Your task to perform on an android device: turn on the 24-hour format for clock Image 0: 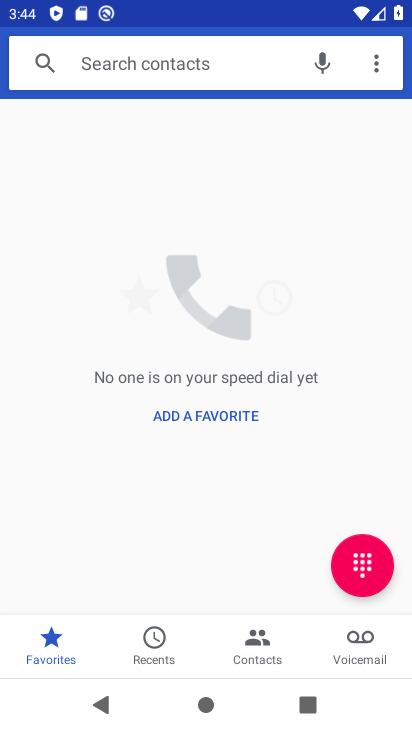
Step 0: press home button
Your task to perform on an android device: turn on the 24-hour format for clock Image 1: 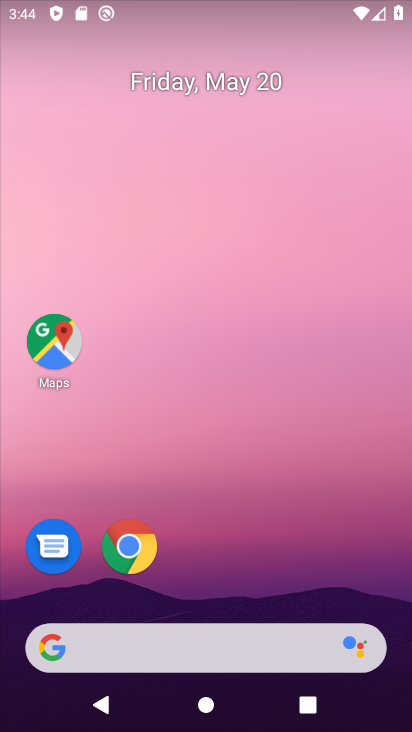
Step 1: drag from (204, 565) to (265, 164)
Your task to perform on an android device: turn on the 24-hour format for clock Image 2: 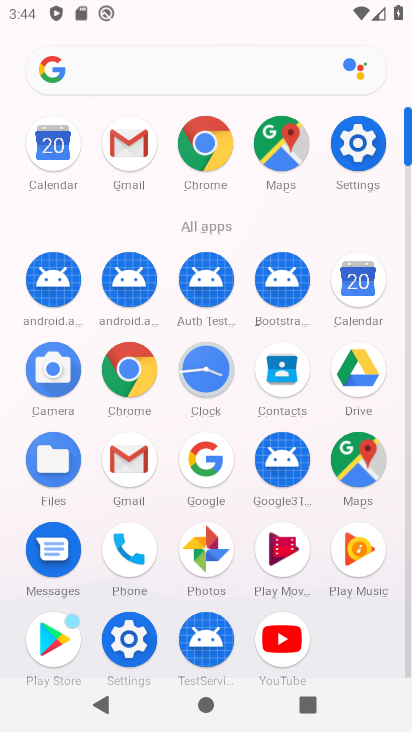
Step 2: click (209, 372)
Your task to perform on an android device: turn on the 24-hour format for clock Image 3: 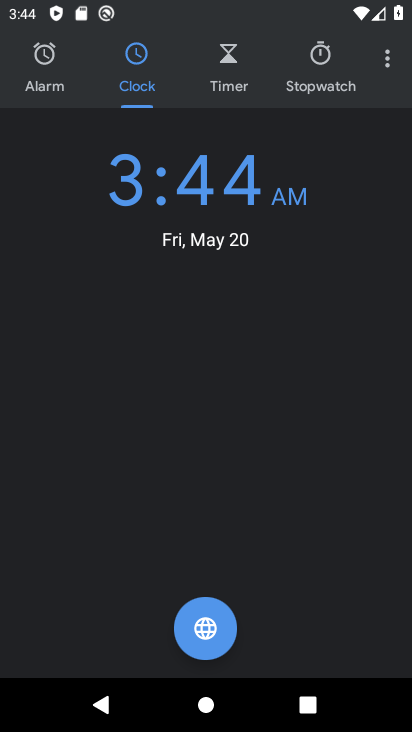
Step 3: drag from (388, 64) to (294, 116)
Your task to perform on an android device: turn on the 24-hour format for clock Image 4: 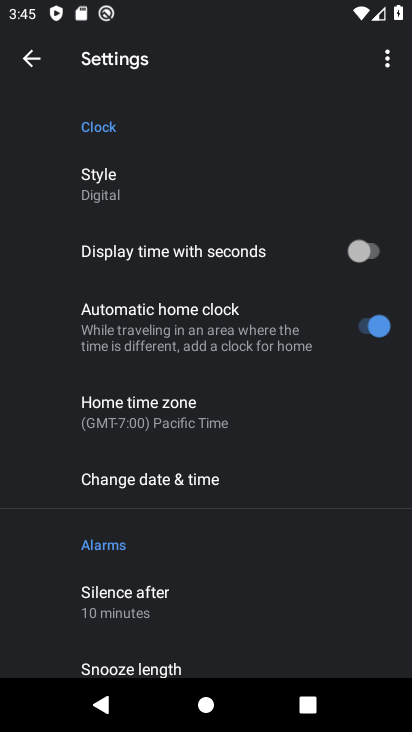
Step 4: click (179, 470)
Your task to perform on an android device: turn on the 24-hour format for clock Image 5: 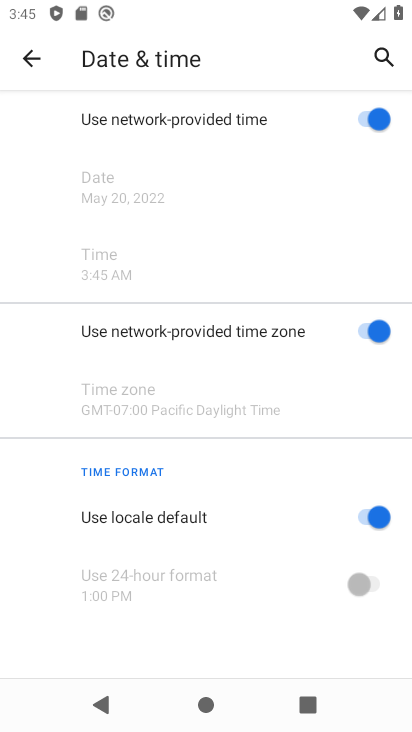
Step 5: click (359, 514)
Your task to perform on an android device: turn on the 24-hour format for clock Image 6: 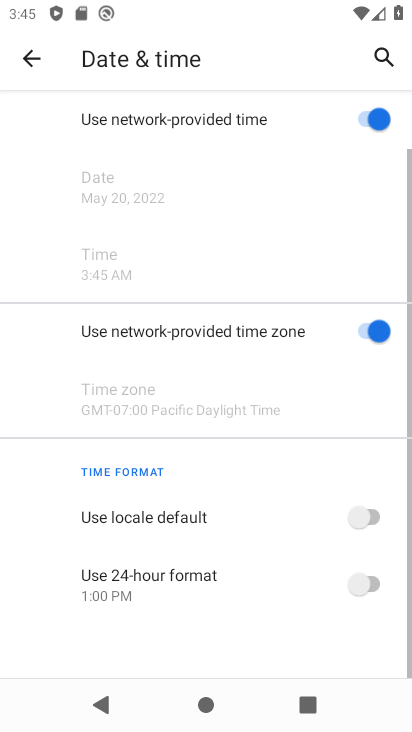
Step 6: click (361, 587)
Your task to perform on an android device: turn on the 24-hour format for clock Image 7: 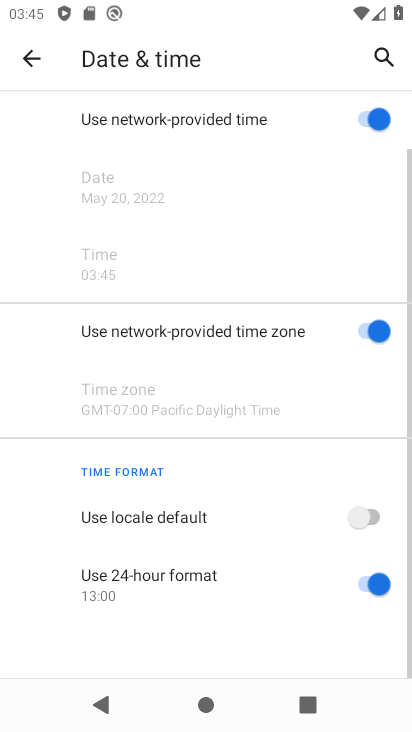
Step 7: task complete